Your task to perform on an android device: change notification settings in the gmail app Image 0: 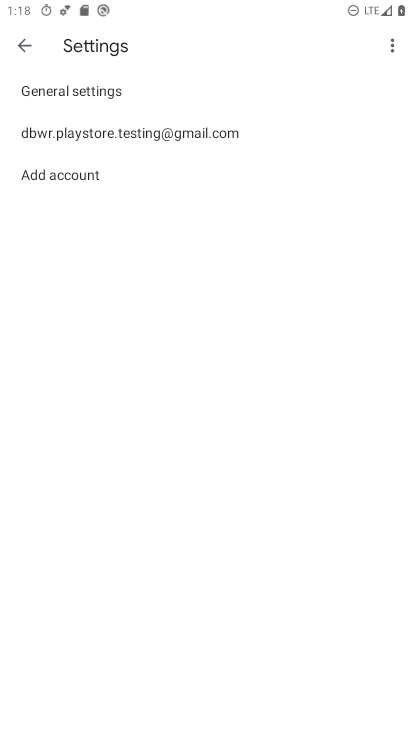
Step 0: press home button
Your task to perform on an android device: change notification settings in the gmail app Image 1: 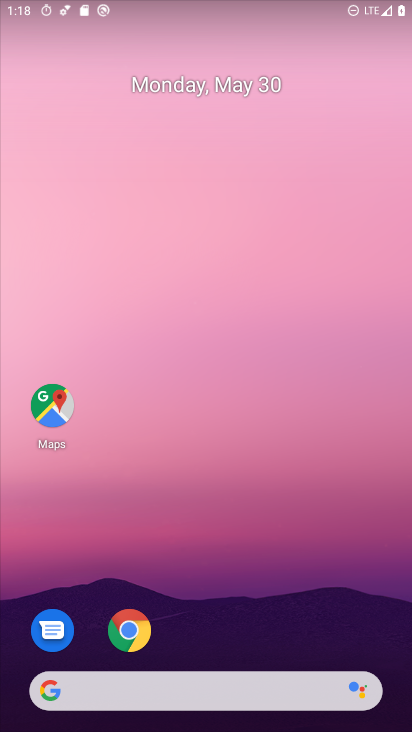
Step 1: drag from (291, 717) to (308, 221)
Your task to perform on an android device: change notification settings in the gmail app Image 2: 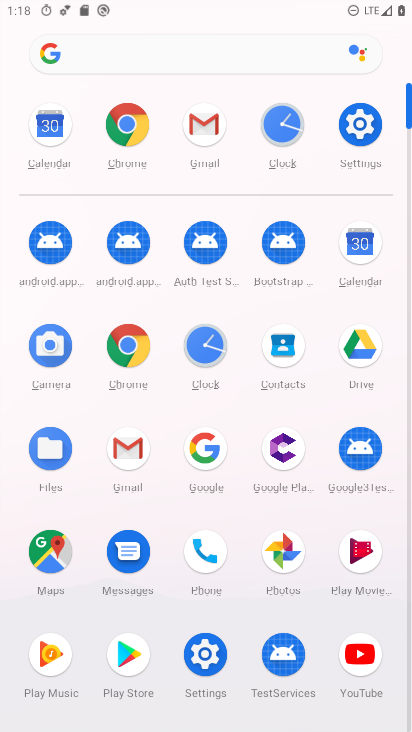
Step 2: click (128, 445)
Your task to perform on an android device: change notification settings in the gmail app Image 3: 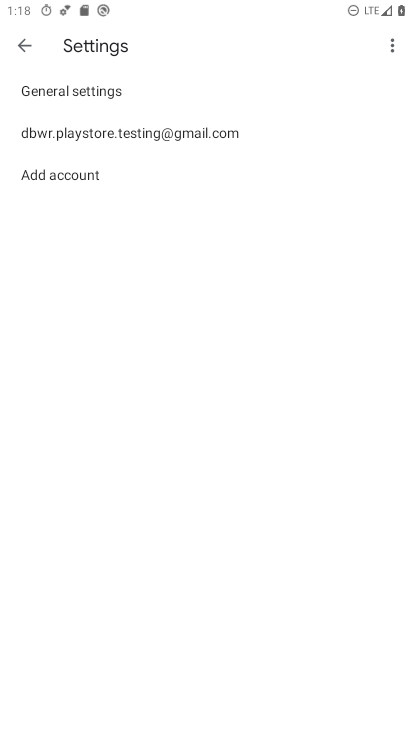
Step 3: click (121, 122)
Your task to perform on an android device: change notification settings in the gmail app Image 4: 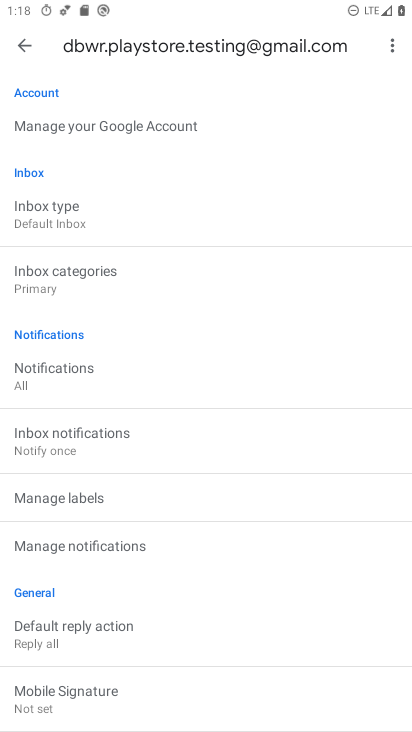
Step 4: click (64, 384)
Your task to perform on an android device: change notification settings in the gmail app Image 5: 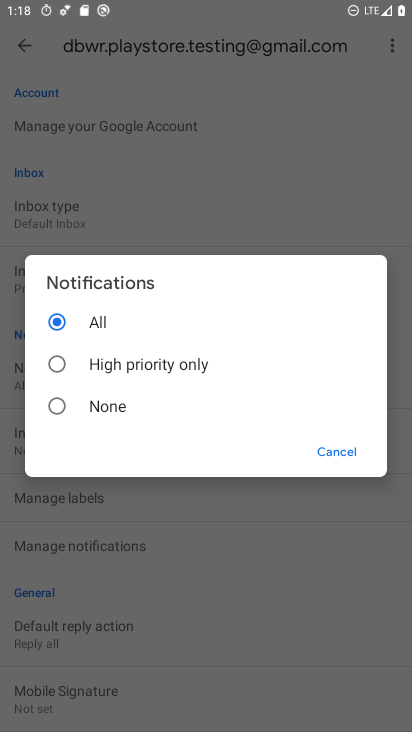
Step 5: click (122, 356)
Your task to perform on an android device: change notification settings in the gmail app Image 6: 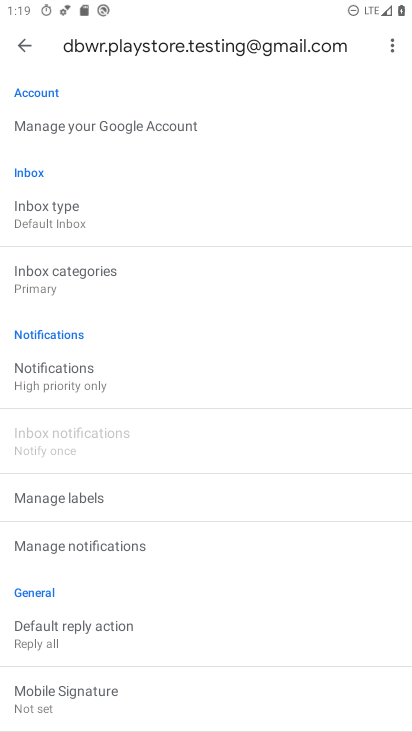
Step 6: task complete